Your task to perform on an android device: Search for Mexican restaurants on Maps Image 0: 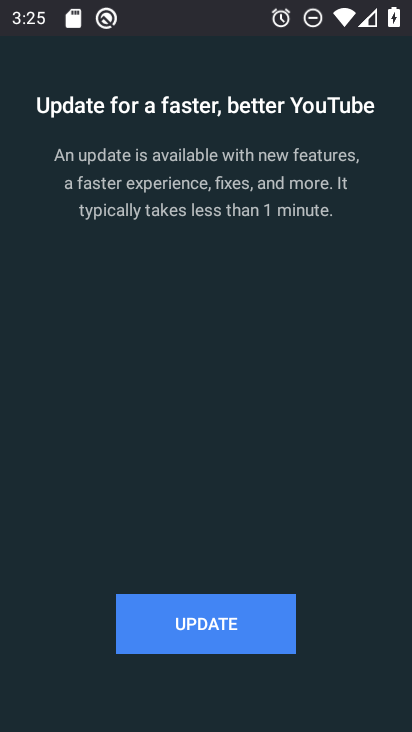
Step 0: press home button
Your task to perform on an android device: Search for Mexican restaurants on Maps Image 1: 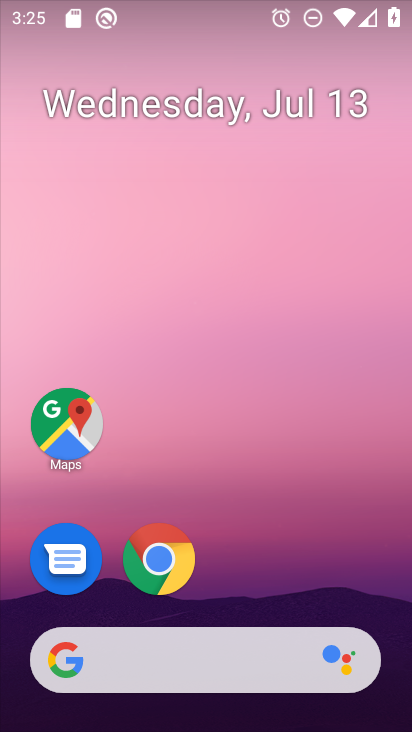
Step 1: drag from (344, 531) to (339, 101)
Your task to perform on an android device: Search for Mexican restaurants on Maps Image 2: 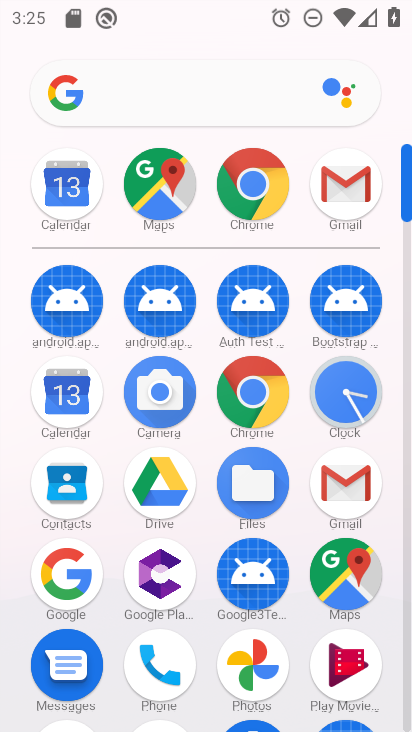
Step 2: click (347, 576)
Your task to perform on an android device: Search for Mexican restaurants on Maps Image 3: 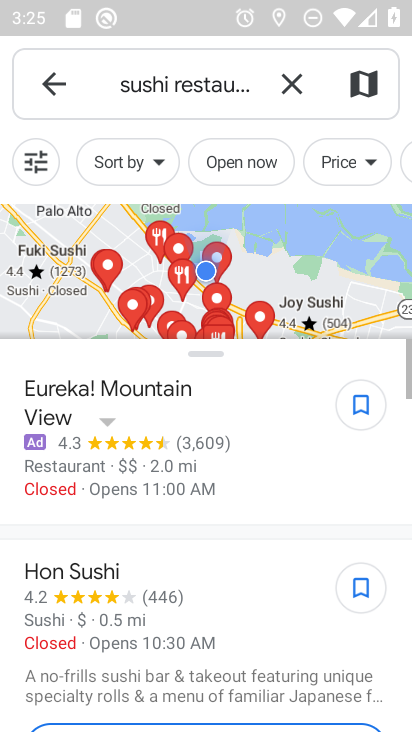
Step 3: press back button
Your task to perform on an android device: Search for Mexican restaurants on Maps Image 4: 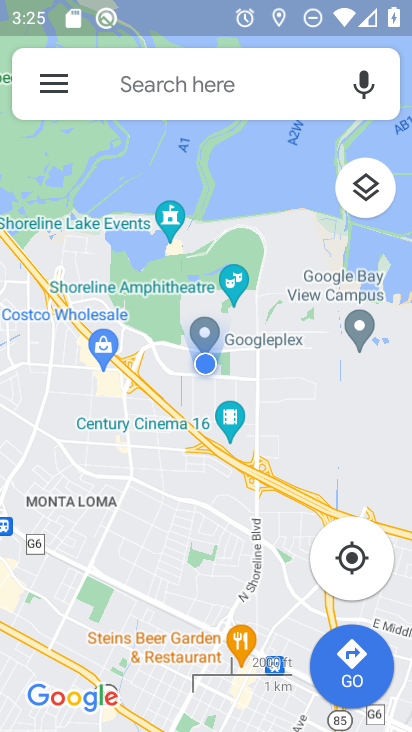
Step 4: click (241, 76)
Your task to perform on an android device: Search for Mexican restaurants on Maps Image 5: 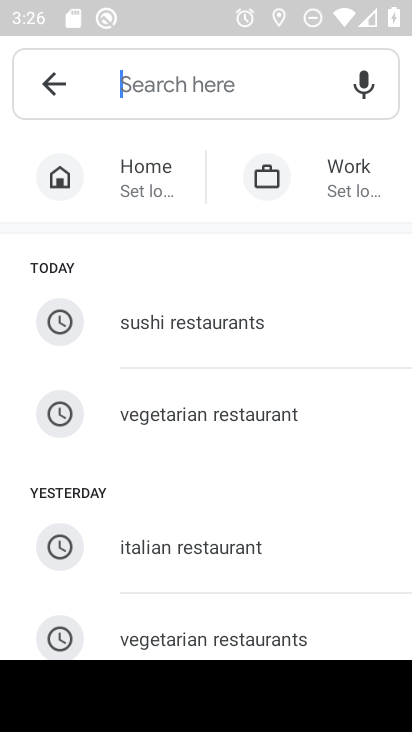
Step 5: type "mexcian restaurnats"
Your task to perform on an android device: Search for Mexican restaurants on Maps Image 6: 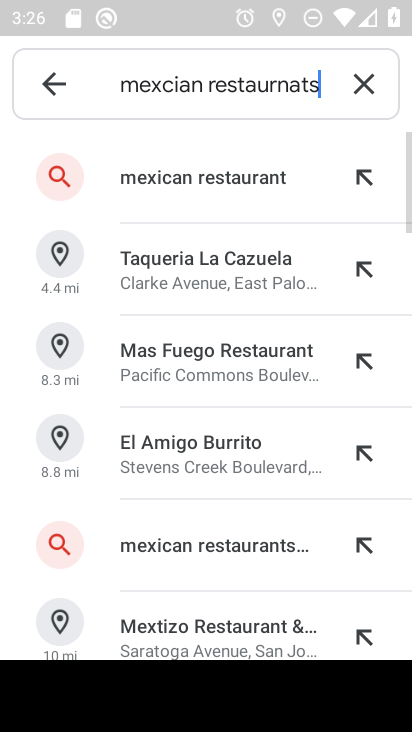
Step 6: click (251, 184)
Your task to perform on an android device: Search for Mexican restaurants on Maps Image 7: 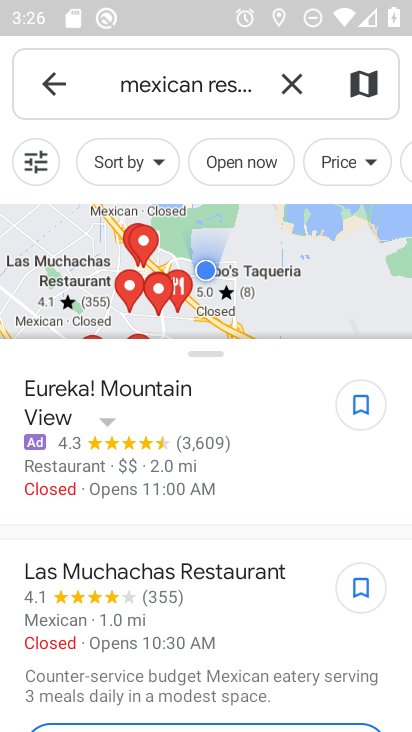
Step 7: task complete